Your task to perform on an android device: empty trash in the gmail app Image 0: 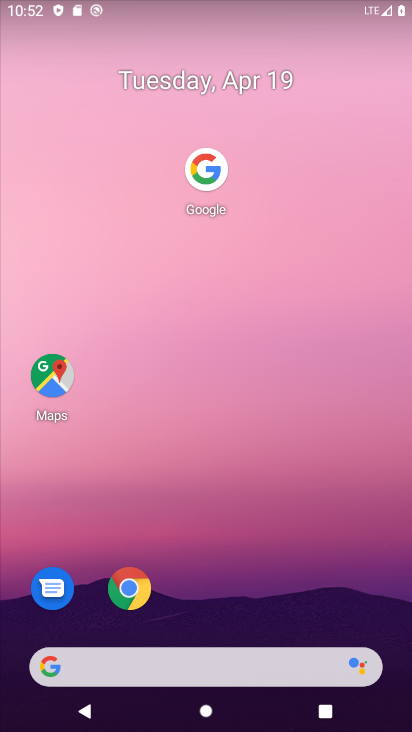
Step 0: drag from (217, 610) to (108, 14)
Your task to perform on an android device: empty trash in the gmail app Image 1: 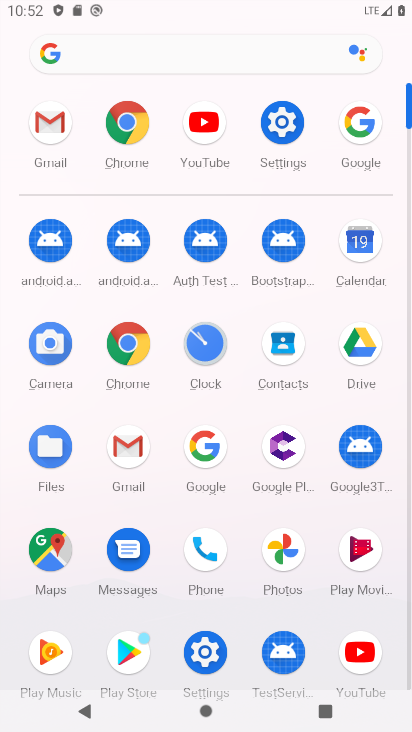
Step 1: click (120, 455)
Your task to perform on an android device: empty trash in the gmail app Image 2: 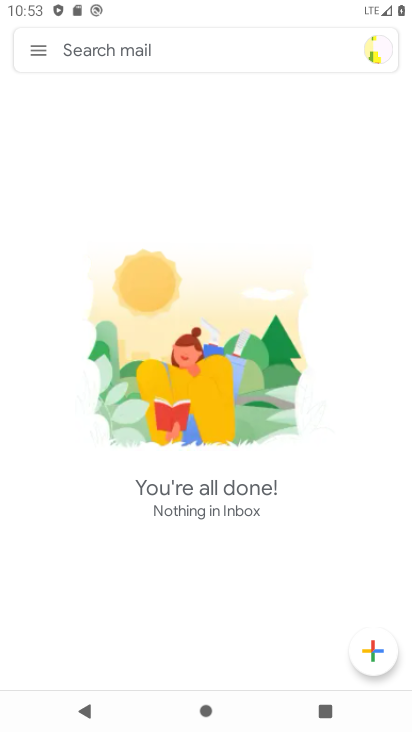
Step 2: click (39, 51)
Your task to perform on an android device: empty trash in the gmail app Image 3: 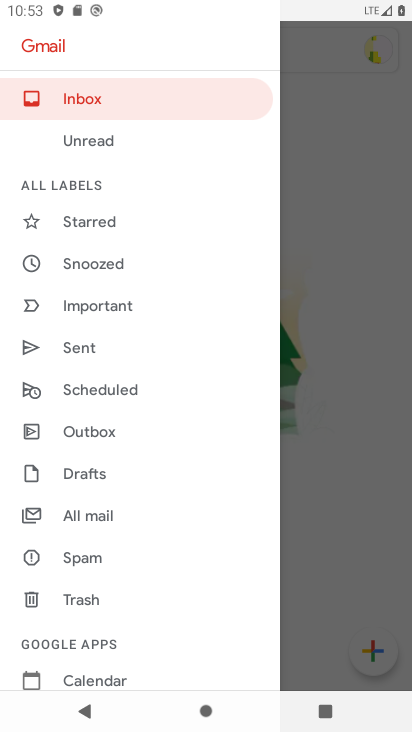
Step 3: click (85, 602)
Your task to perform on an android device: empty trash in the gmail app Image 4: 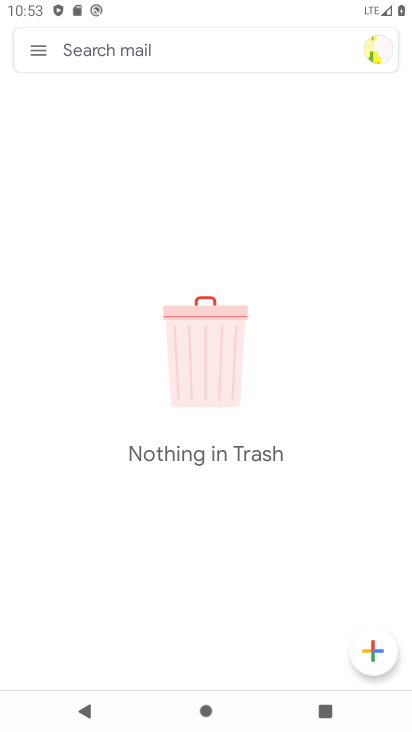
Step 4: task complete